Your task to perform on an android device: delete a single message in the gmail app Image 0: 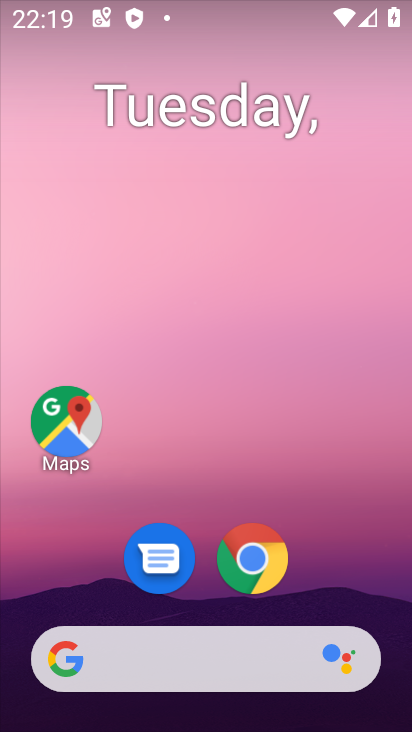
Step 0: drag from (334, 524) to (339, 41)
Your task to perform on an android device: delete a single message in the gmail app Image 1: 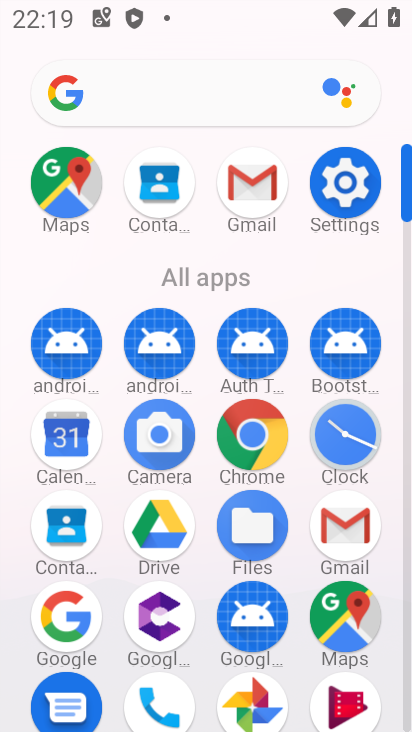
Step 1: click (252, 195)
Your task to perform on an android device: delete a single message in the gmail app Image 2: 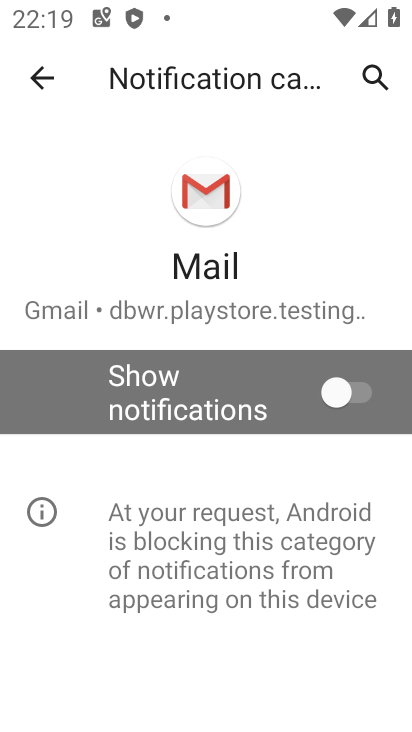
Step 2: click (40, 76)
Your task to perform on an android device: delete a single message in the gmail app Image 3: 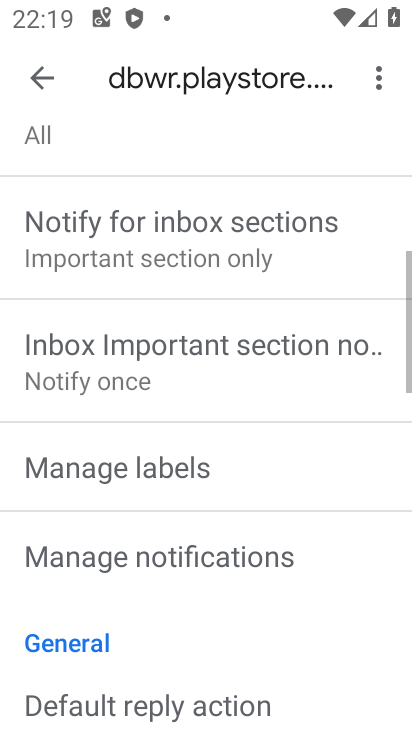
Step 3: click (40, 75)
Your task to perform on an android device: delete a single message in the gmail app Image 4: 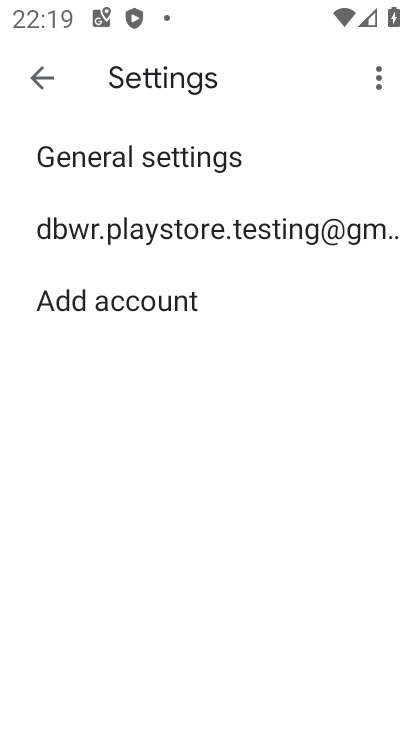
Step 4: click (40, 75)
Your task to perform on an android device: delete a single message in the gmail app Image 5: 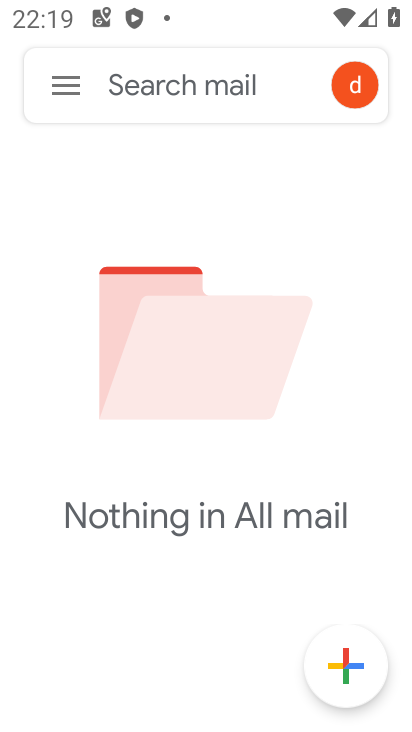
Step 5: task complete